Your task to perform on an android device: Clear the shopping cart on amazon.com. Add "usb-b" to the cart on amazon.com Image 0: 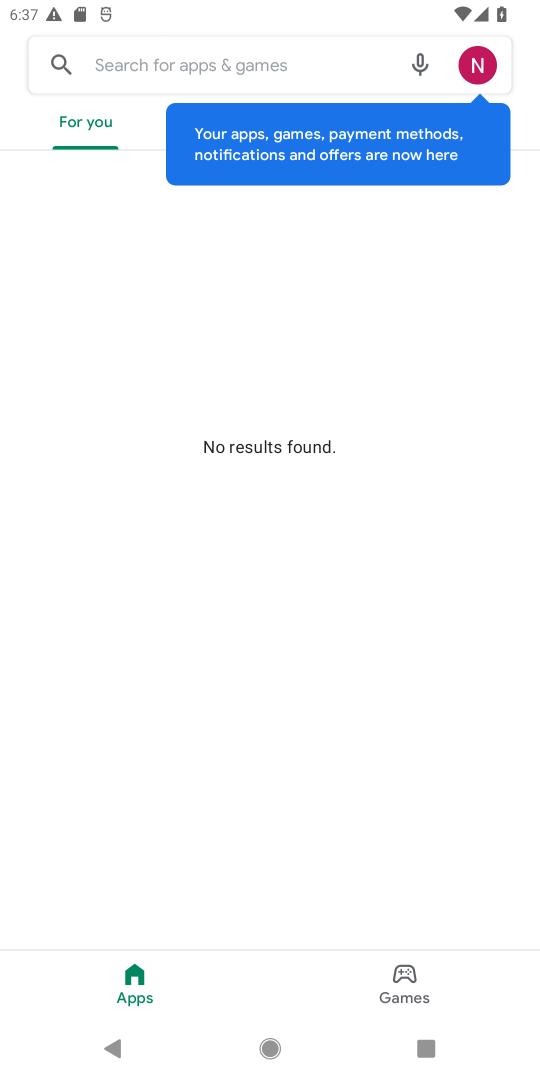
Step 0: press home button
Your task to perform on an android device: Clear the shopping cart on amazon.com. Add "usb-b" to the cart on amazon.com Image 1: 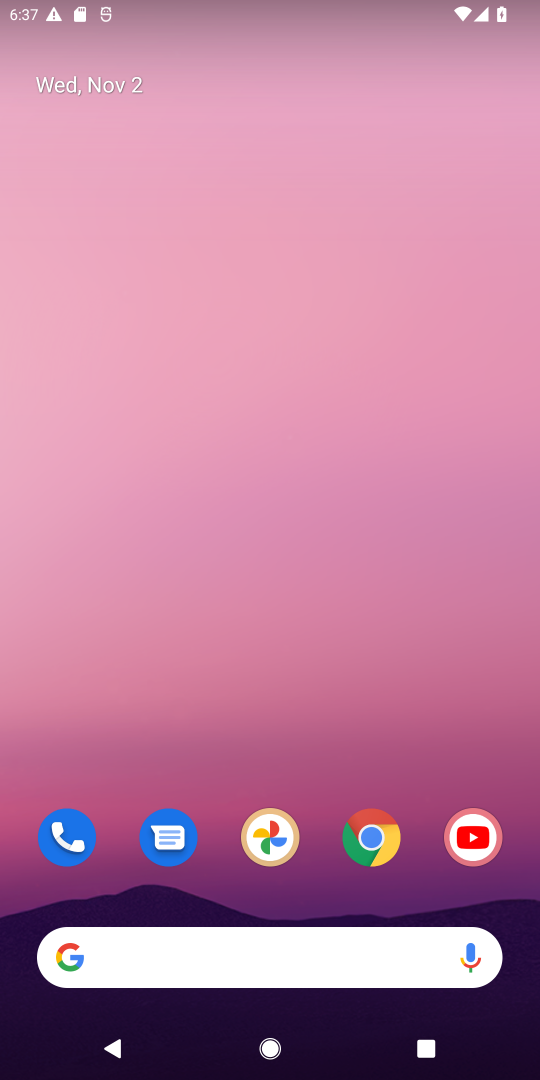
Step 1: click (390, 834)
Your task to perform on an android device: Clear the shopping cart on amazon.com. Add "usb-b" to the cart on amazon.com Image 2: 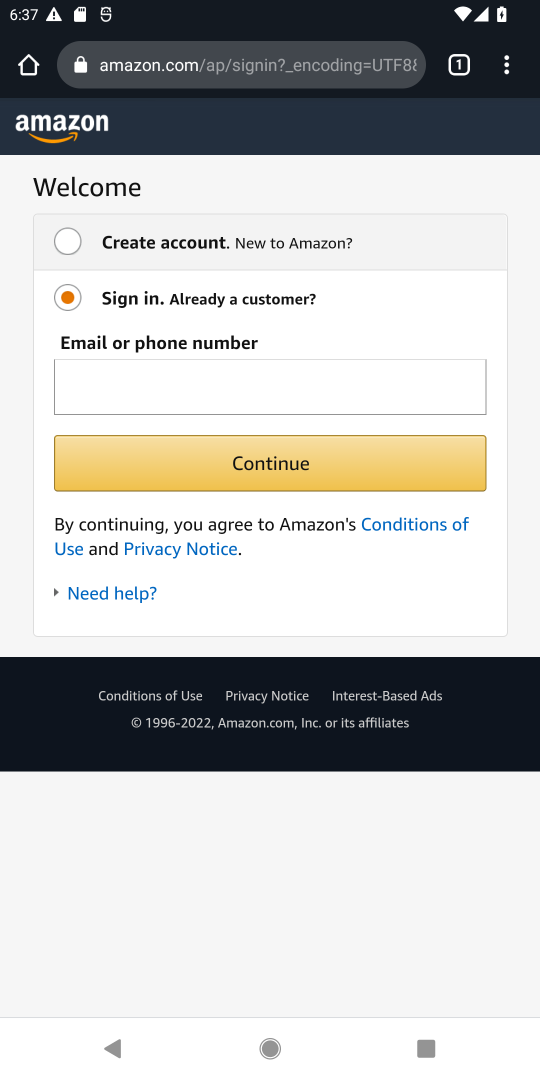
Step 2: click (176, 72)
Your task to perform on an android device: Clear the shopping cart on amazon.com. Add "usb-b" to the cart on amazon.com Image 3: 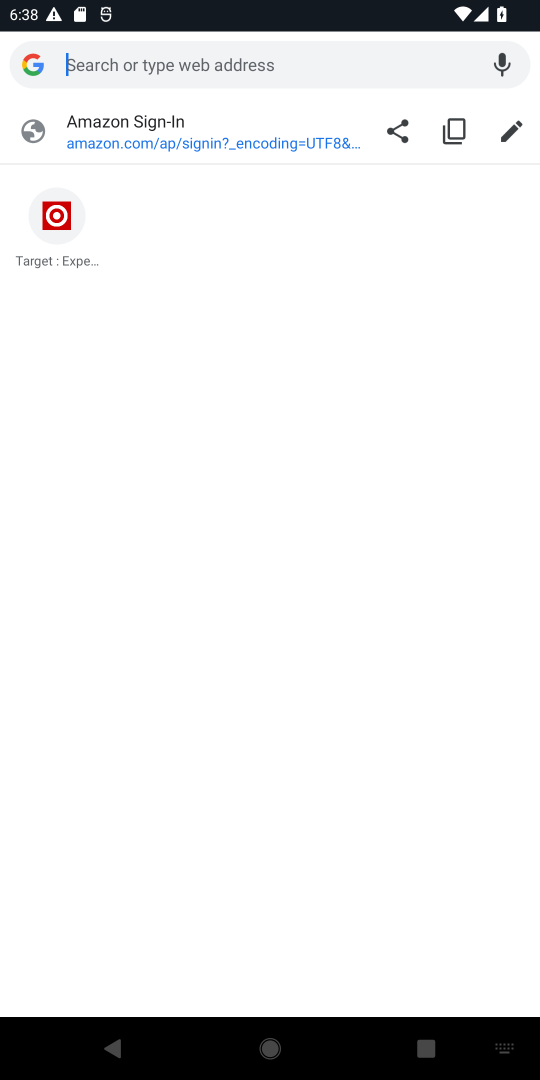
Step 3: type "amazone.com"
Your task to perform on an android device: Clear the shopping cart on amazon.com. Add "usb-b" to the cart on amazon.com Image 4: 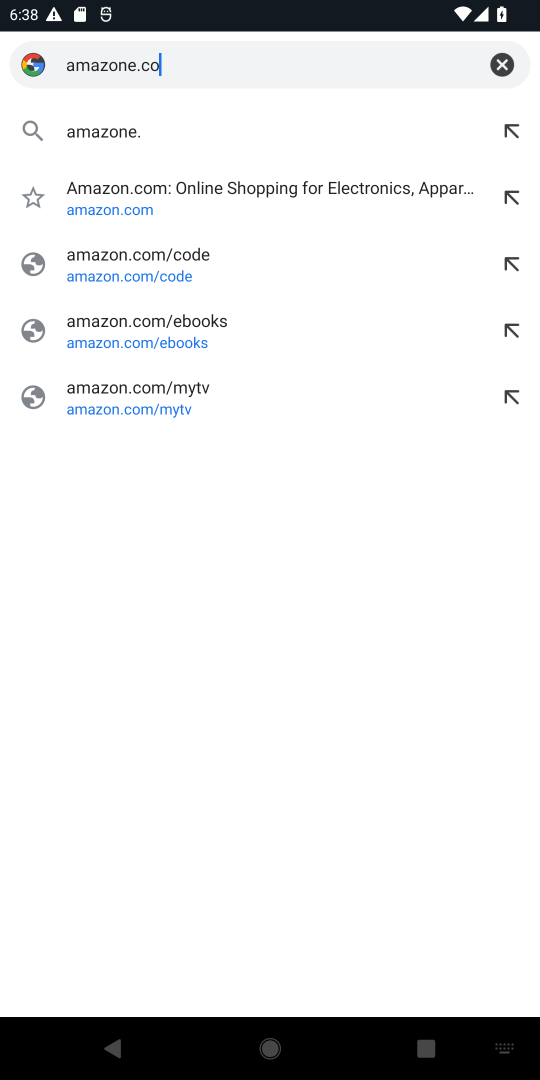
Step 4: type ""
Your task to perform on an android device: Clear the shopping cart on amazon.com. Add "usb-b" to the cart on amazon.com Image 5: 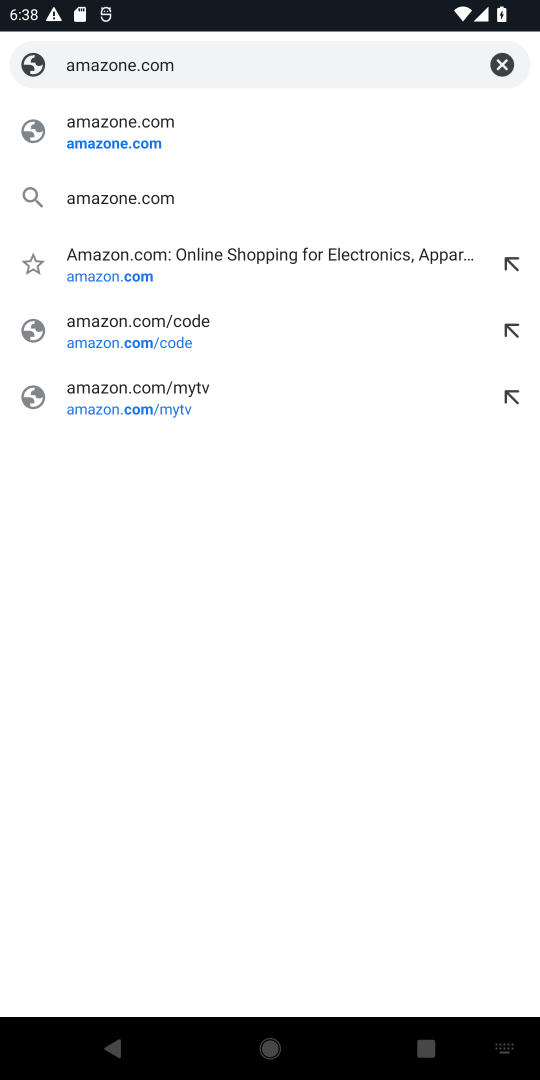
Step 5: click (123, 256)
Your task to perform on an android device: Clear the shopping cart on amazon.com. Add "usb-b" to the cart on amazon.com Image 6: 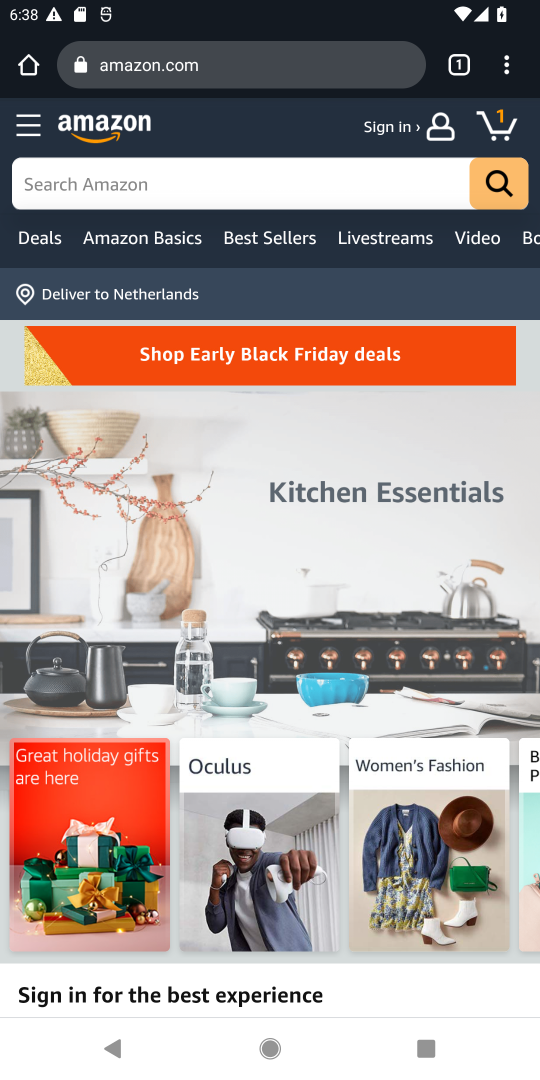
Step 6: click (488, 122)
Your task to perform on an android device: Clear the shopping cart on amazon.com. Add "usb-b" to the cart on amazon.com Image 7: 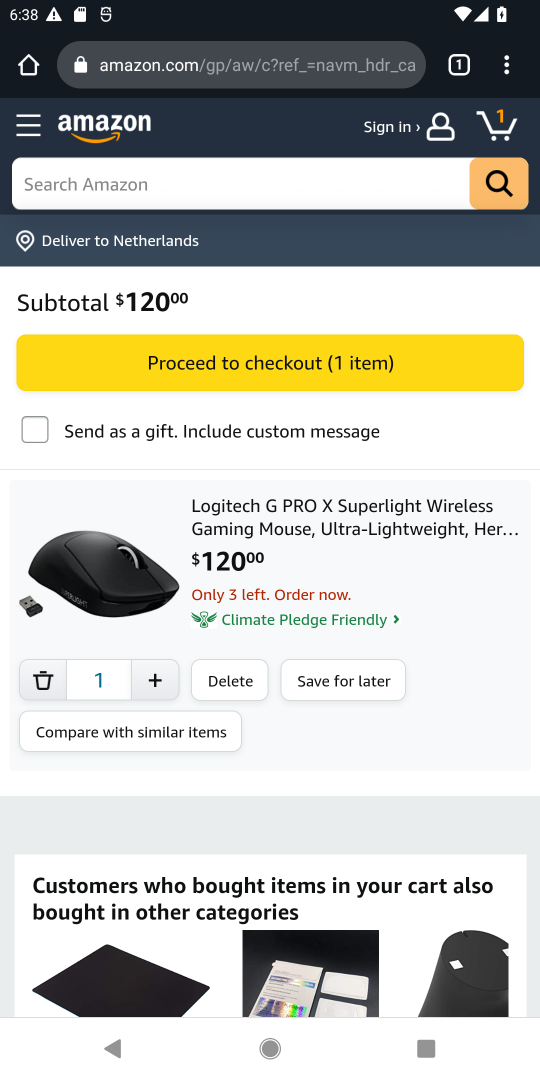
Step 7: click (234, 671)
Your task to perform on an android device: Clear the shopping cart on amazon.com. Add "usb-b" to the cart on amazon.com Image 8: 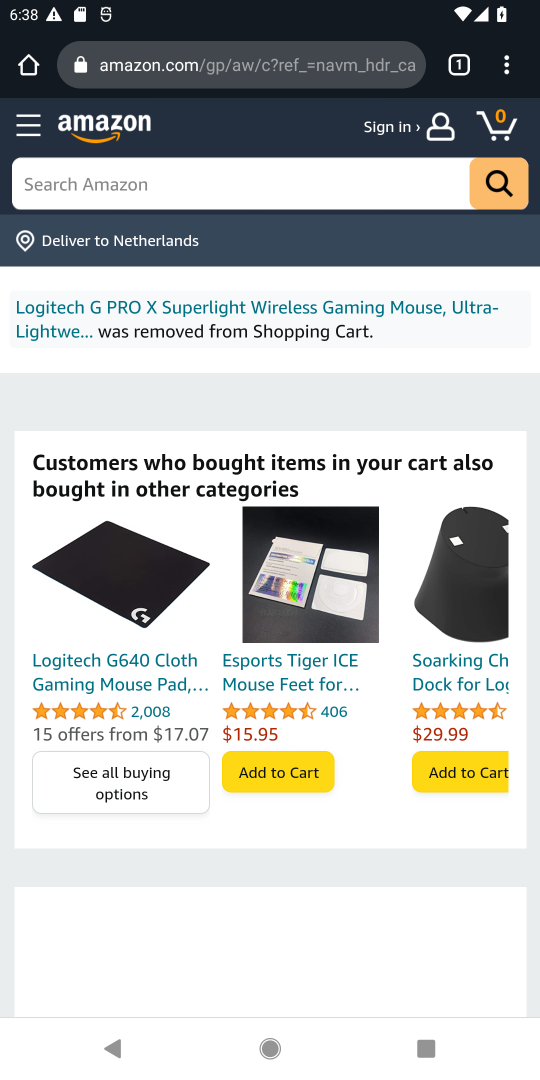
Step 8: press back button
Your task to perform on an android device: Clear the shopping cart on amazon.com. Add "usb-b" to the cart on amazon.com Image 9: 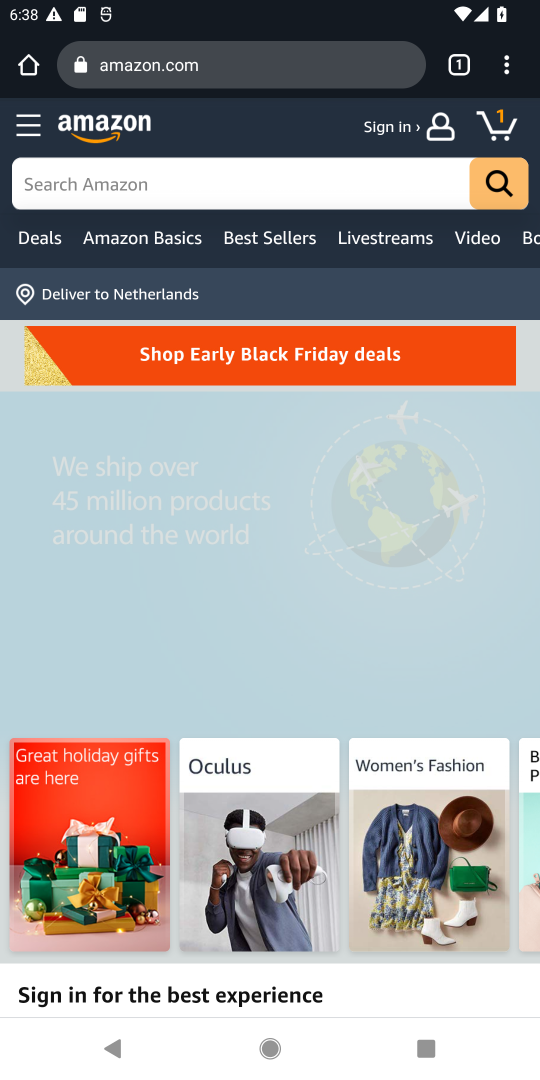
Step 9: click (133, 190)
Your task to perform on an android device: Clear the shopping cart on amazon.com. Add "usb-b" to the cart on amazon.com Image 10: 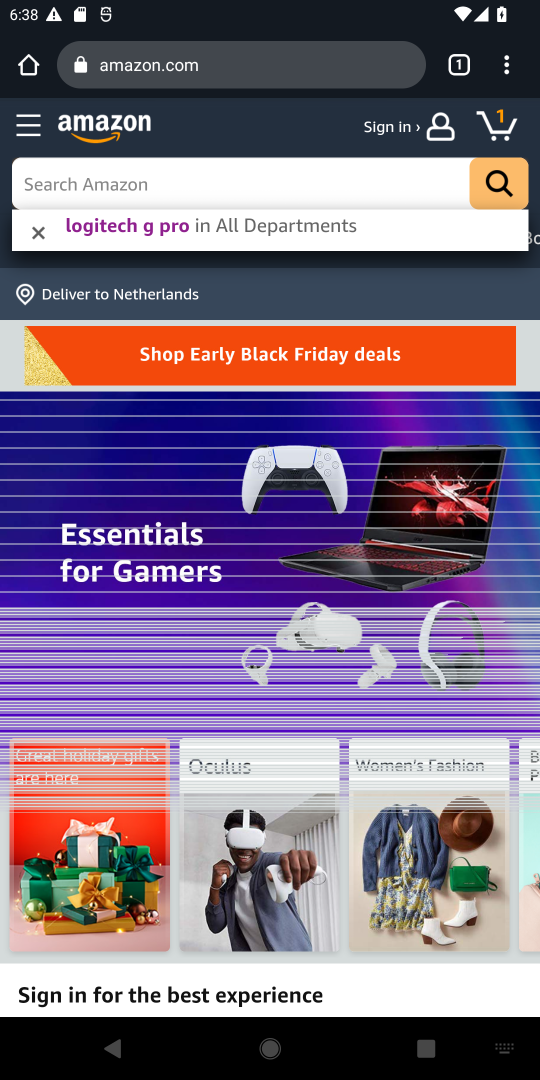
Step 10: type "usb-b"
Your task to perform on an android device: Clear the shopping cart on amazon.com. Add "usb-b" to the cart on amazon.com Image 11: 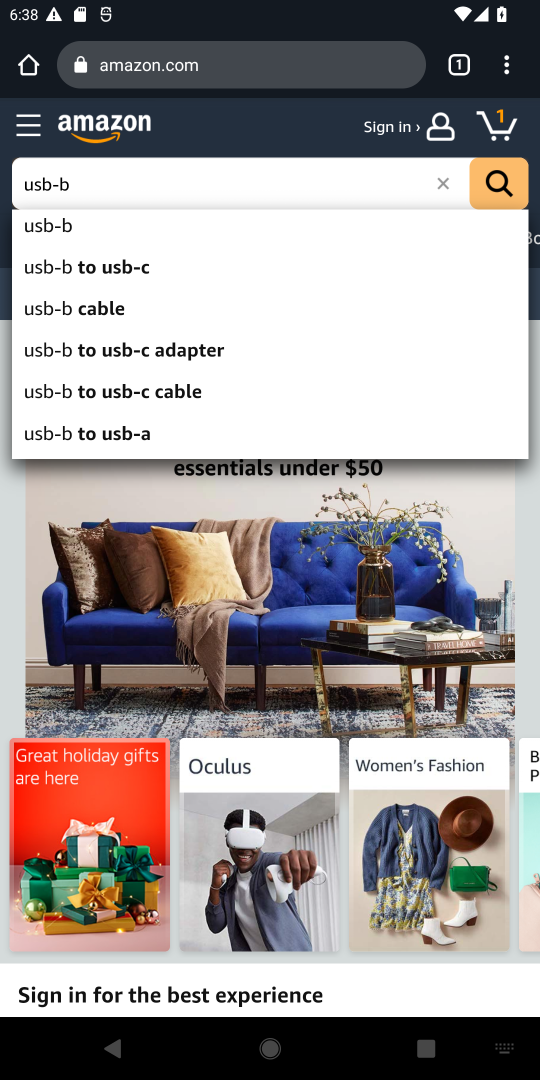
Step 11: click (33, 230)
Your task to perform on an android device: Clear the shopping cart on amazon.com. Add "usb-b" to the cart on amazon.com Image 12: 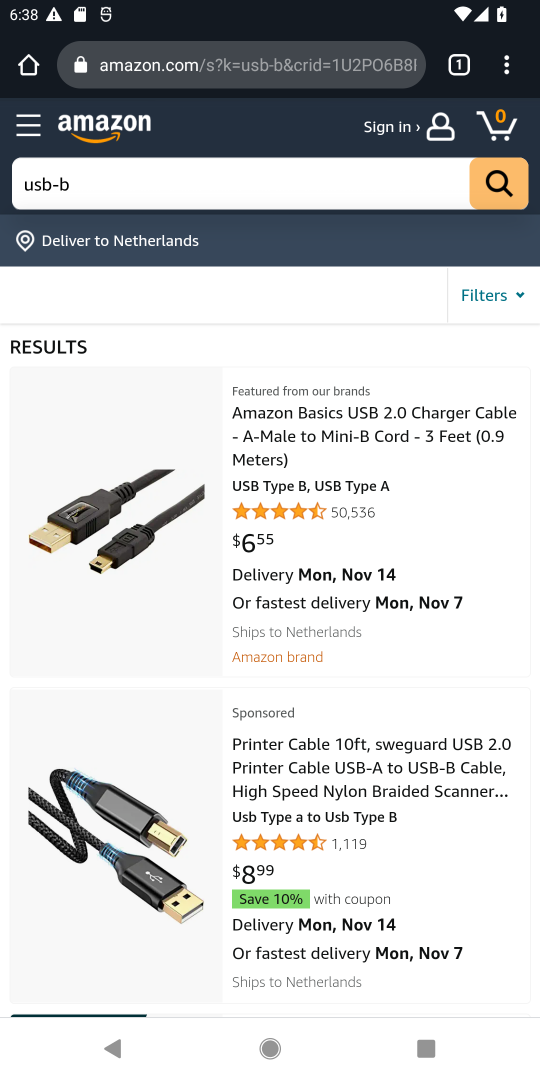
Step 12: click (359, 415)
Your task to perform on an android device: Clear the shopping cart on amazon.com. Add "usb-b" to the cart on amazon.com Image 13: 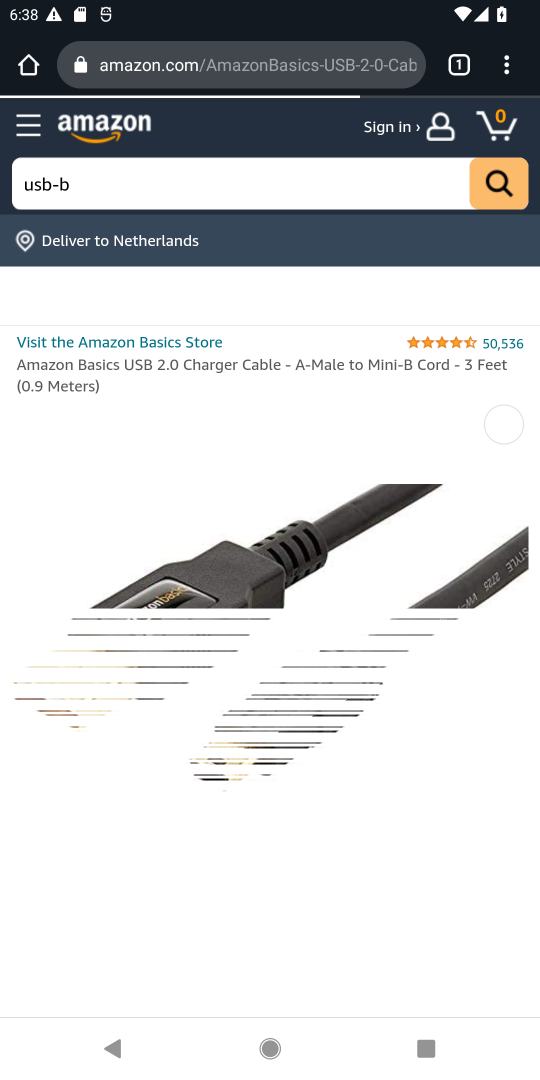
Step 13: drag from (306, 698) to (327, 282)
Your task to perform on an android device: Clear the shopping cart on amazon.com. Add "usb-b" to the cart on amazon.com Image 14: 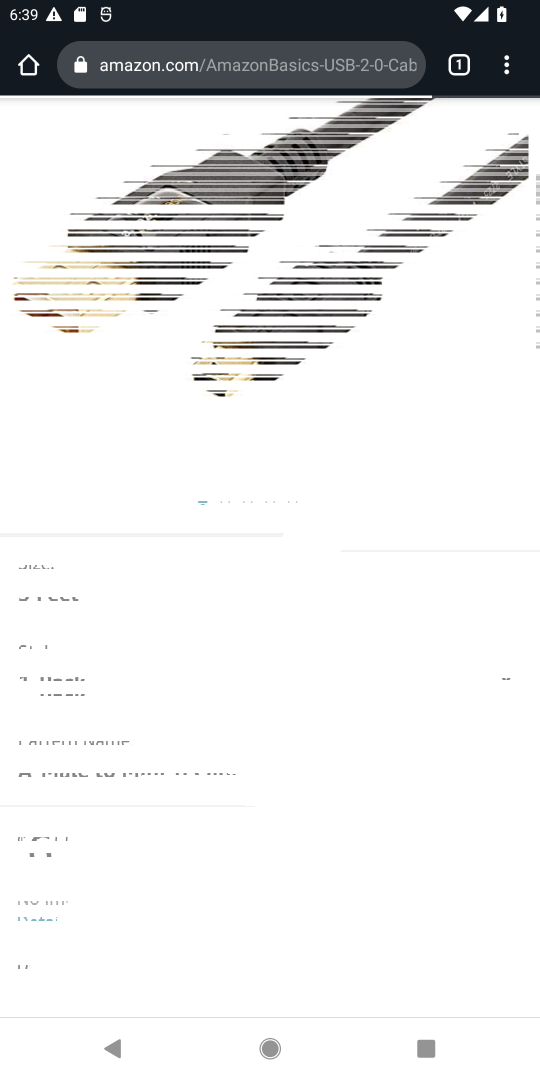
Step 14: drag from (269, 773) to (351, 271)
Your task to perform on an android device: Clear the shopping cart on amazon.com. Add "usb-b" to the cart on amazon.com Image 15: 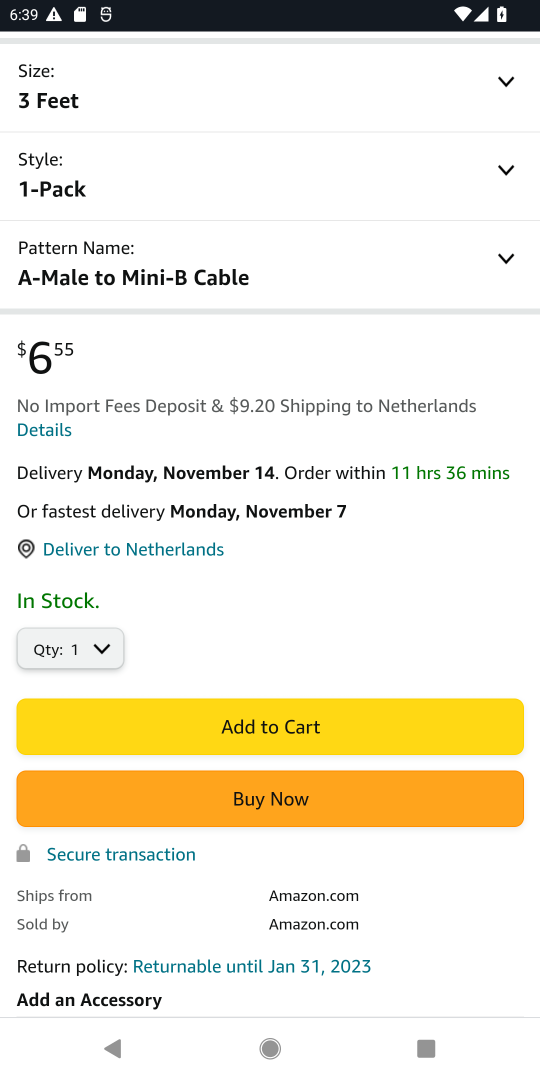
Step 15: click (521, 835)
Your task to perform on an android device: Clear the shopping cart on amazon.com. Add "usb-b" to the cart on amazon.com Image 16: 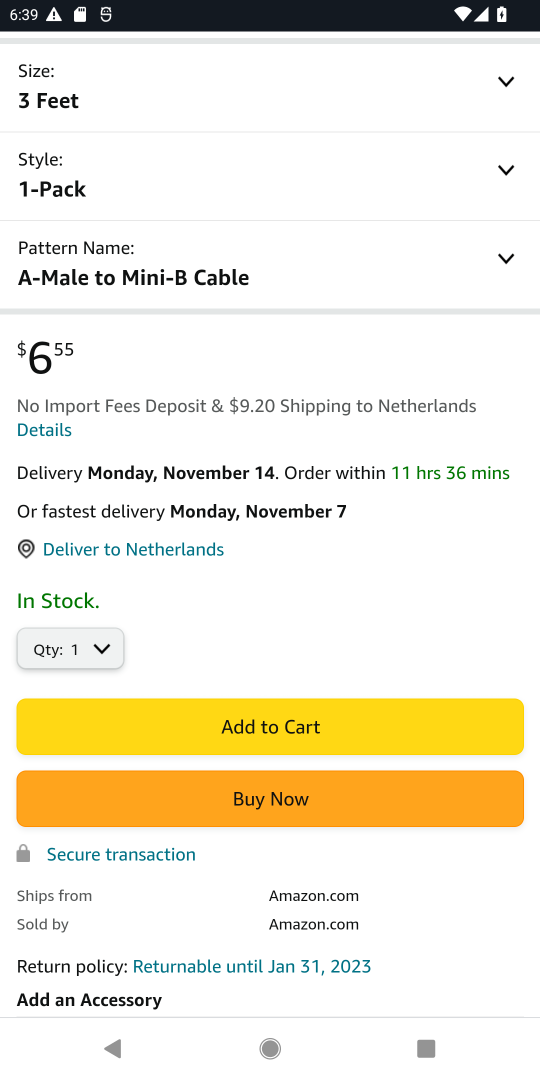
Step 16: click (324, 725)
Your task to perform on an android device: Clear the shopping cart on amazon.com. Add "usb-b" to the cart on amazon.com Image 17: 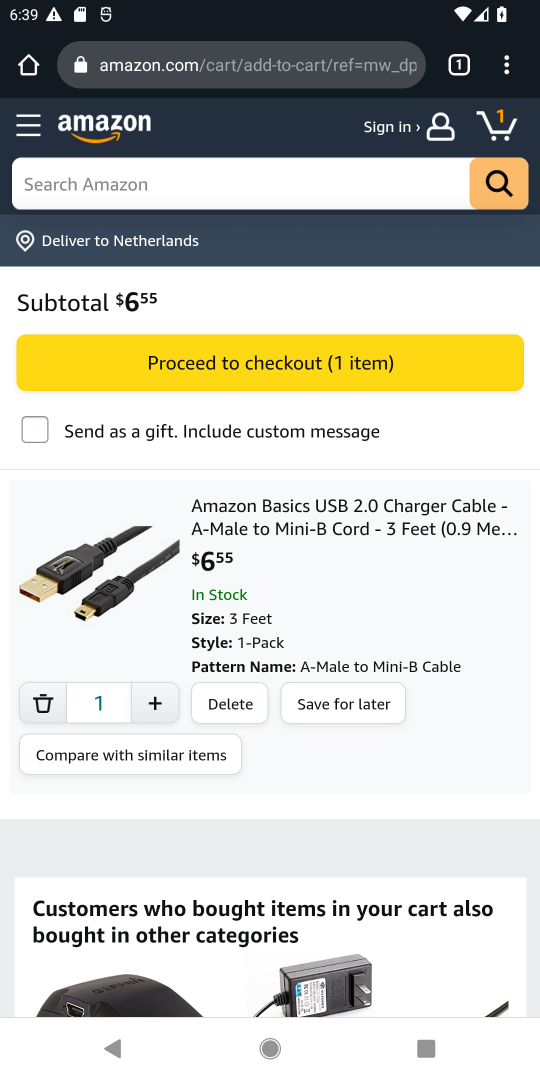
Step 17: click (304, 373)
Your task to perform on an android device: Clear the shopping cart on amazon.com. Add "usb-b" to the cart on amazon.com Image 18: 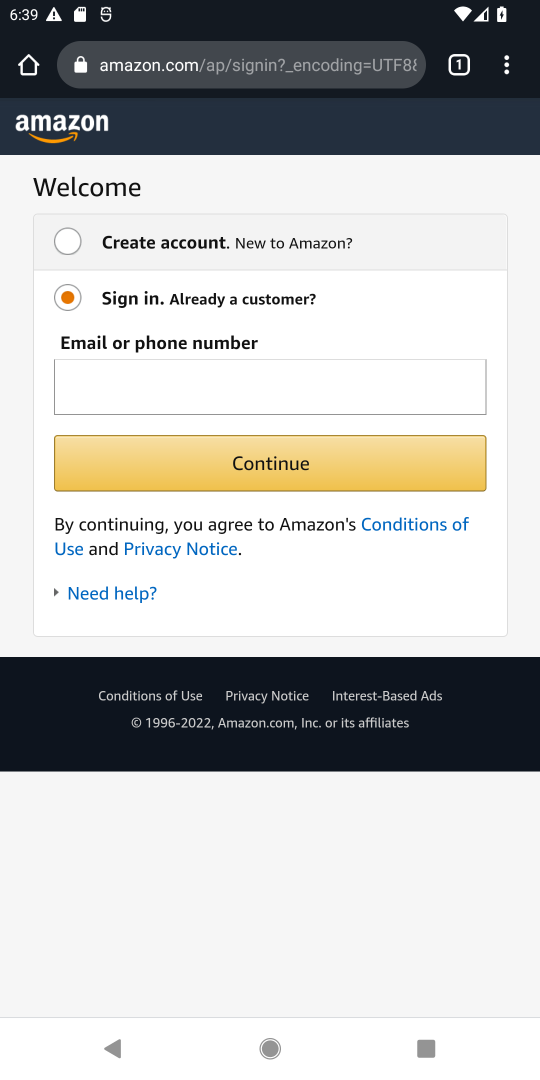
Step 18: task complete